Your task to perform on an android device: toggle show notifications on the lock screen Image 0: 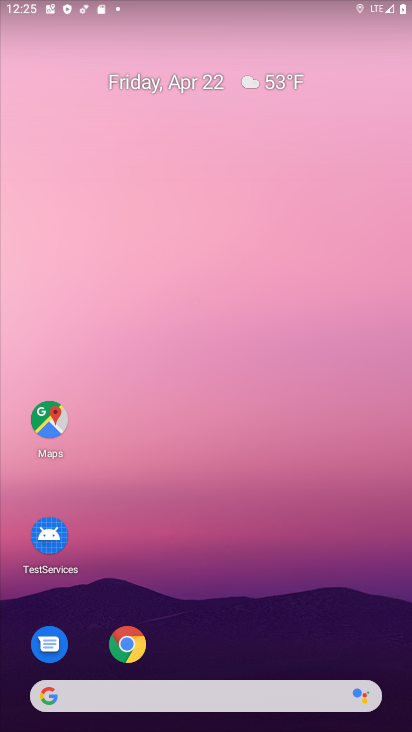
Step 0: drag from (304, 626) to (272, 129)
Your task to perform on an android device: toggle show notifications on the lock screen Image 1: 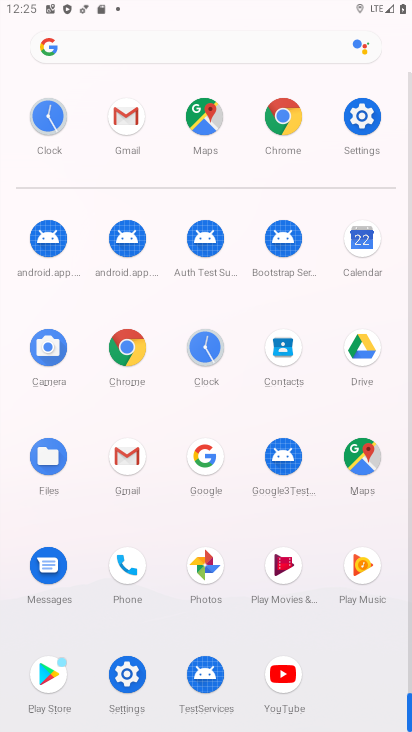
Step 1: click (133, 670)
Your task to perform on an android device: toggle show notifications on the lock screen Image 2: 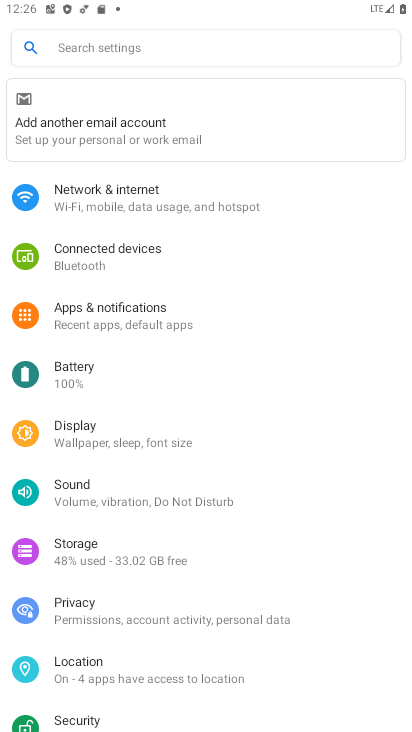
Step 2: click (143, 309)
Your task to perform on an android device: toggle show notifications on the lock screen Image 3: 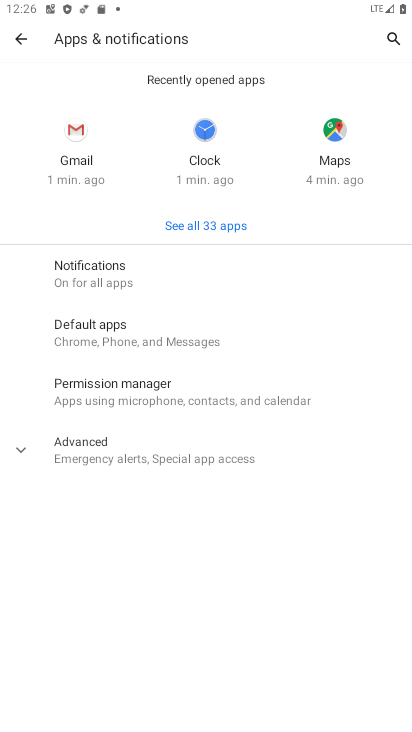
Step 3: click (135, 279)
Your task to perform on an android device: toggle show notifications on the lock screen Image 4: 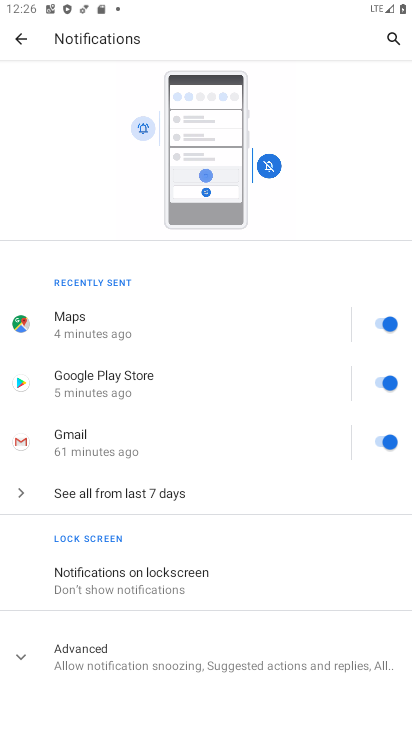
Step 4: click (200, 569)
Your task to perform on an android device: toggle show notifications on the lock screen Image 5: 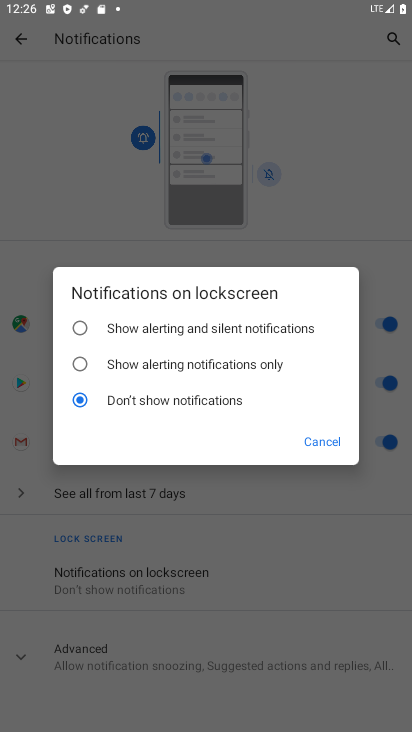
Step 5: click (188, 364)
Your task to perform on an android device: toggle show notifications on the lock screen Image 6: 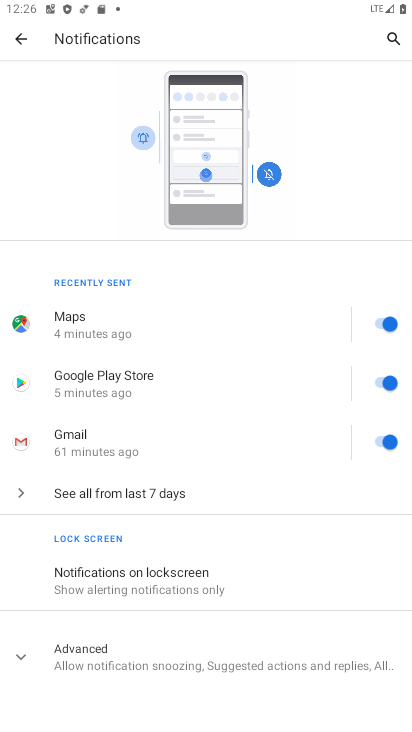
Step 6: task complete